Your task to perform on an android device: Open settings on Google Maps Image 0: 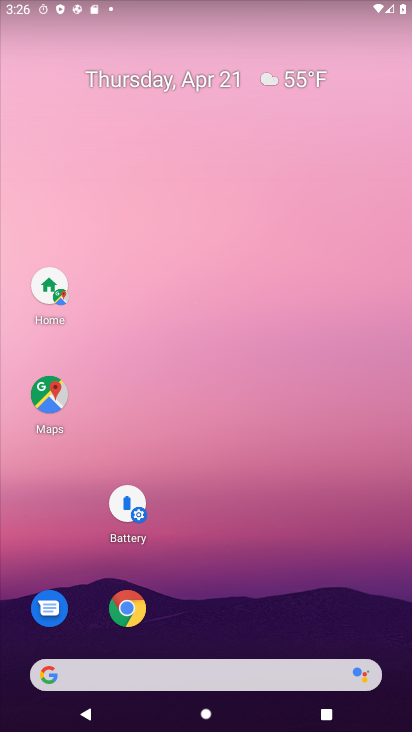
Step 0: drag from (344, 517) to (311, 34)
Your task to perform on an android device: Open settings on Google Maps Image 1: 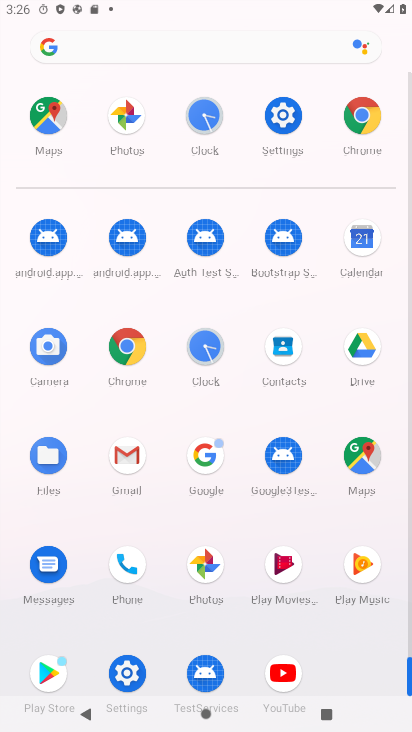
Step 1: click (48, 125)
Your task to perform on an android device: Open settings on Google Maps Image 2: 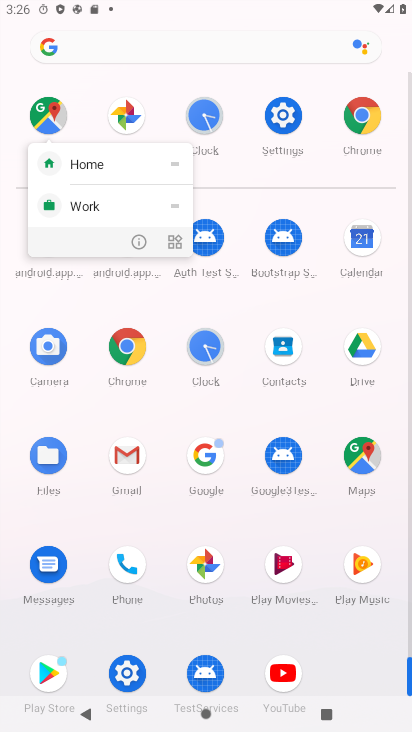
Step 2: click (48, 125)
Your task to perform on an android device: Open settings on Google Maps Image 3: 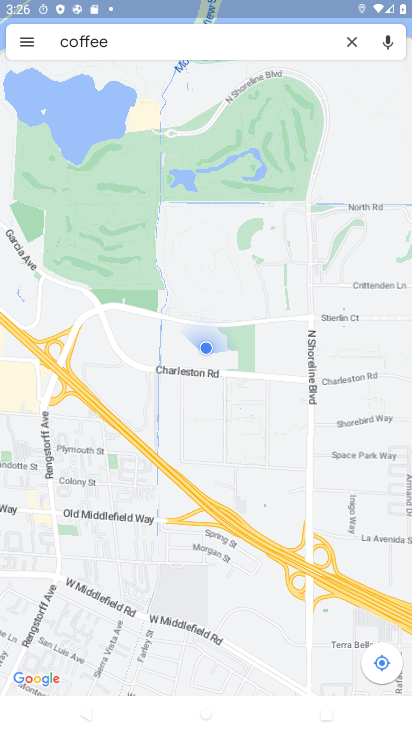
Step 3: click (15, 40)
Your task to perform on an android device: Open settings on Google Maps Image 4: 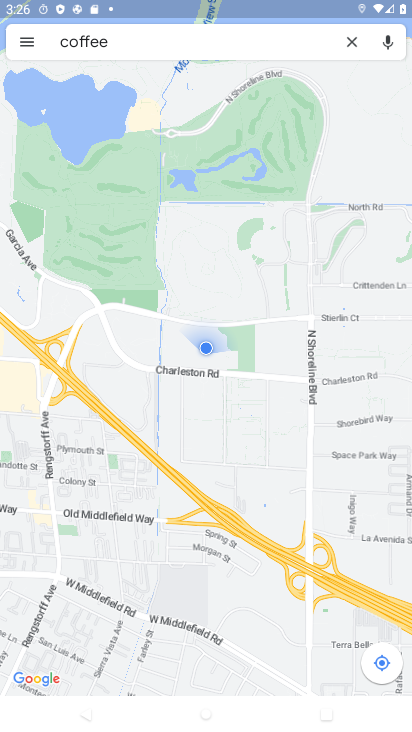
Step 4: click (23, 43)
Your task to perform on an android device: Open settings on Google Maps Image 5: 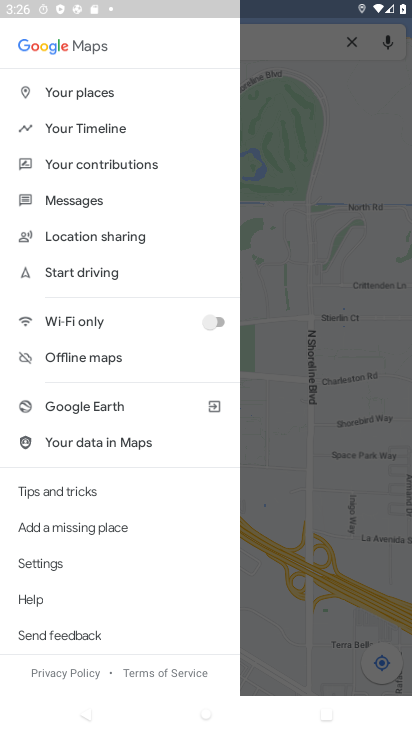
Step 5: click (16, 554)
Your task to perform on an android device: Open settings on Google Maps Image 6: 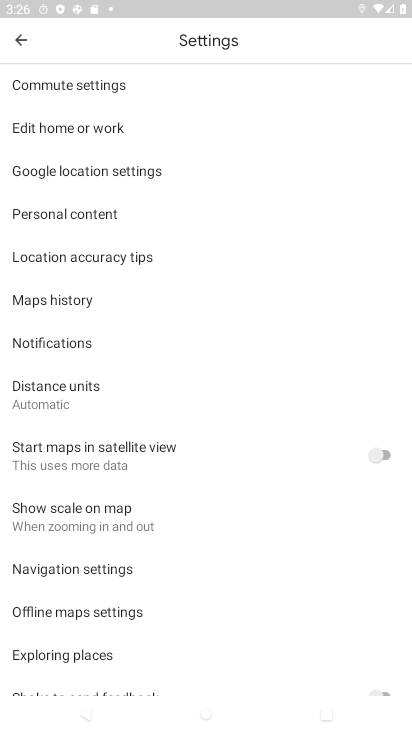
Step 6: task complete